Your task to perform on an android device: choose inbox layout in the gmail app Image 0: 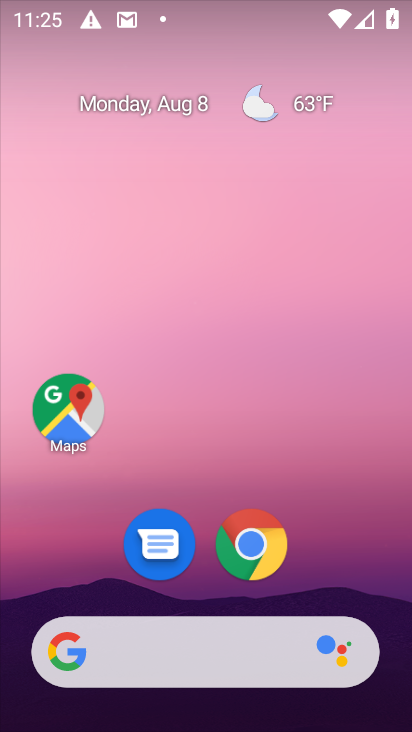
Step 0: drag from (165, 646) to (249, 147)
Your task to perform on an android device: choose inbox layout in the gmail app Image 1: 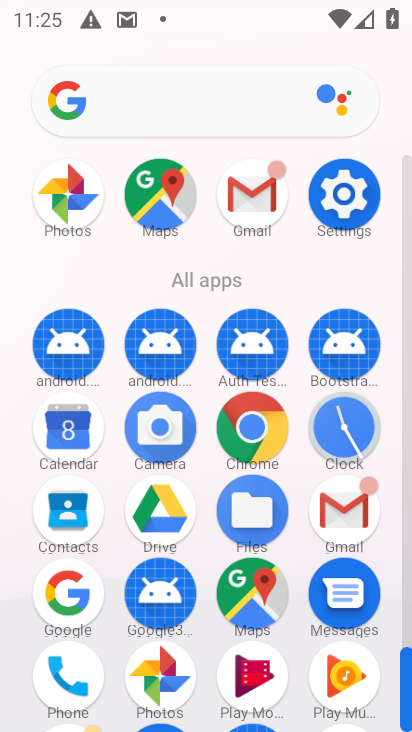
Step 1: click (253, 191)
Your task to perform on an android device: choose inbox layout in the gmail app Image 2: 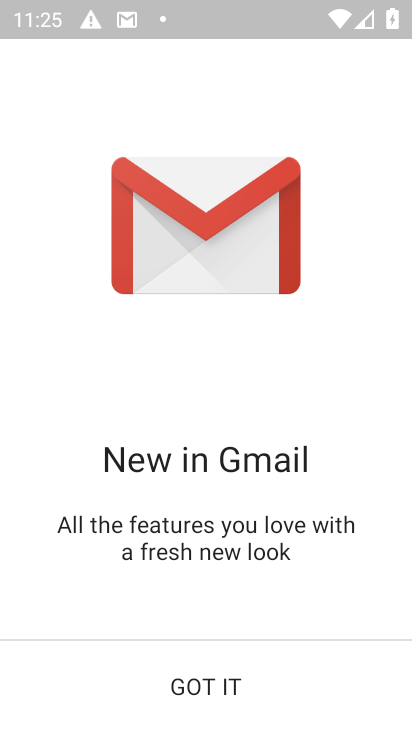
Step 2: click (203, 692)
Your task to perform on an android device: choose inbox layout in the gmail app Image 3: 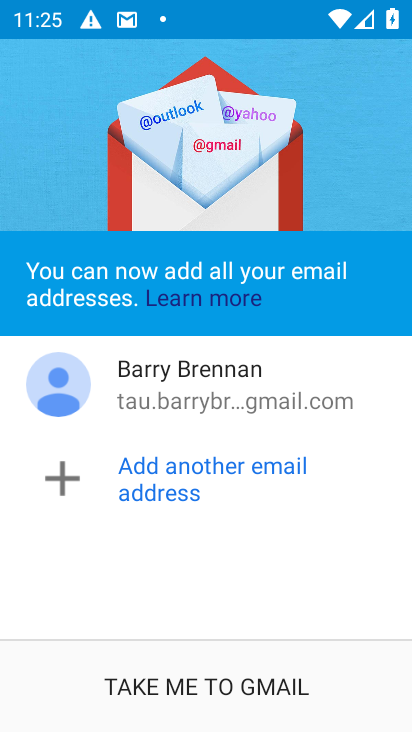
Step 3: click (203, 692)
Your task to perform on an android device: choose inbox layout in the gmail app Image 4: 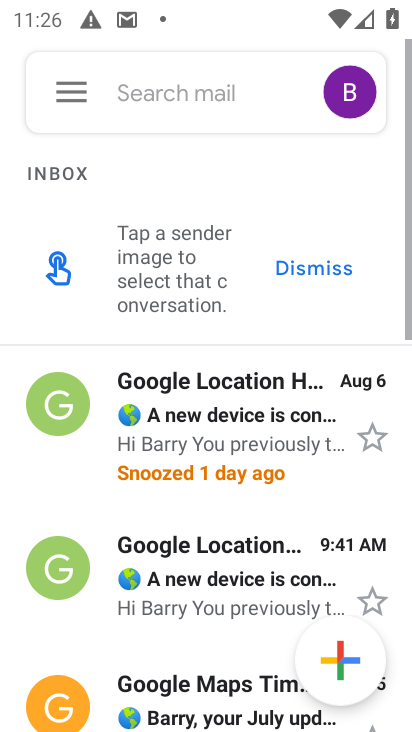
Step 4: click (68, 89)
Your task to perform on an android device: choose inbox layout in the gmail app Image 5: 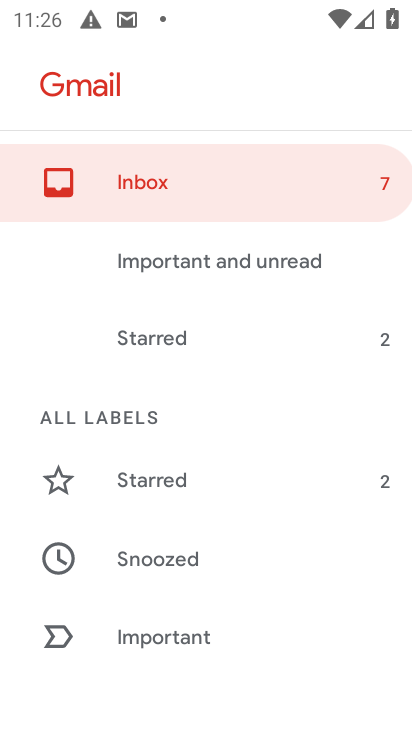
Step 5: drag from (164, 506) to (290, 249)
Your task to perform on an android device: choose inbox layout in the gmail app Image 6: 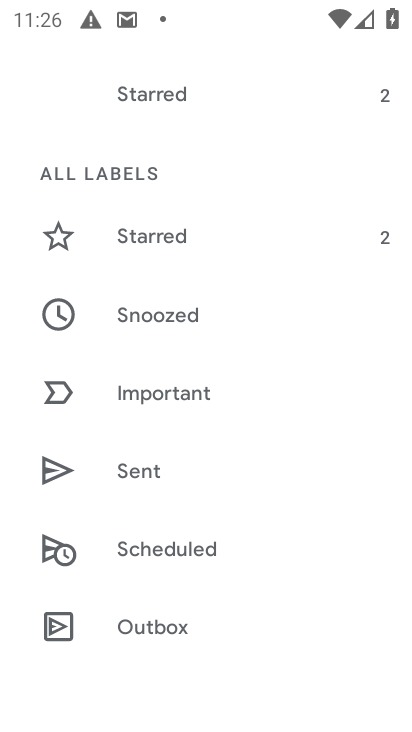
Step 6: drag from (198, 508) to (271, 361)
Your task to perform on an android device: choose inbox layout in the gmail app Image 7: 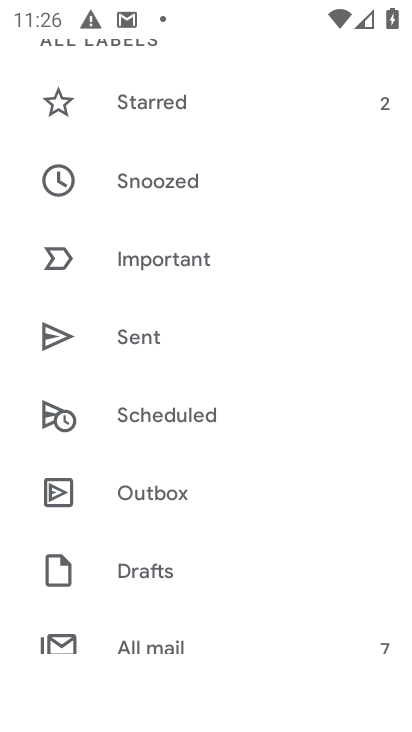
Step 7: drag from (186, 540) to (273, 373)
Your task to perform on an android device: choose inbox layout in the gmail app Image 8: 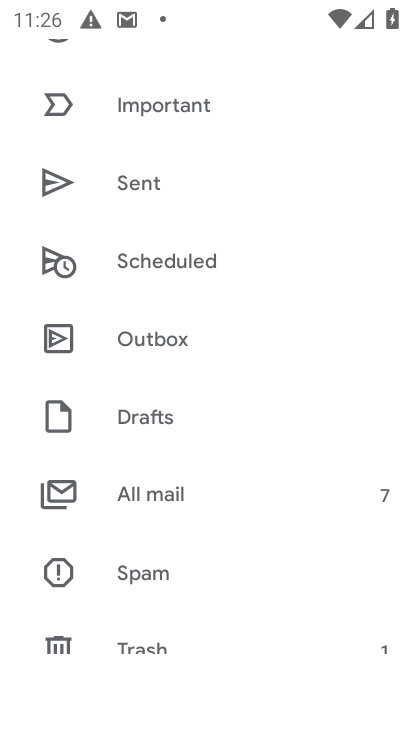
Step 8: drag from (157, 604) to (299, 334)
Your task to perform on an android device: choose inbox layout in the gmail app Image 9: 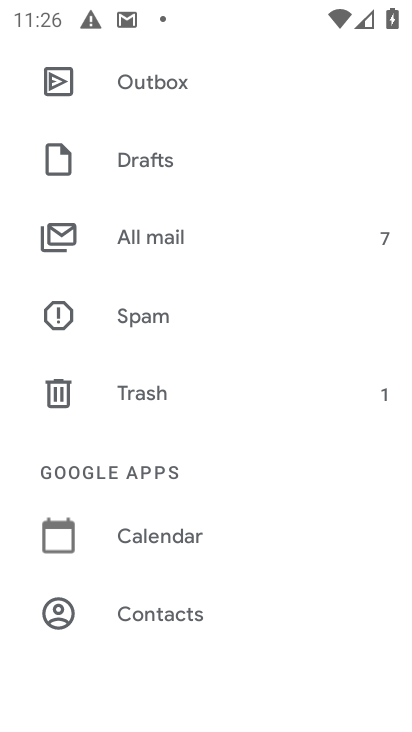
Step 9: drag from (188, 576) to (298, 420)
Your task to perform on an android device: choose inbox layout in the gmail app Image 10: 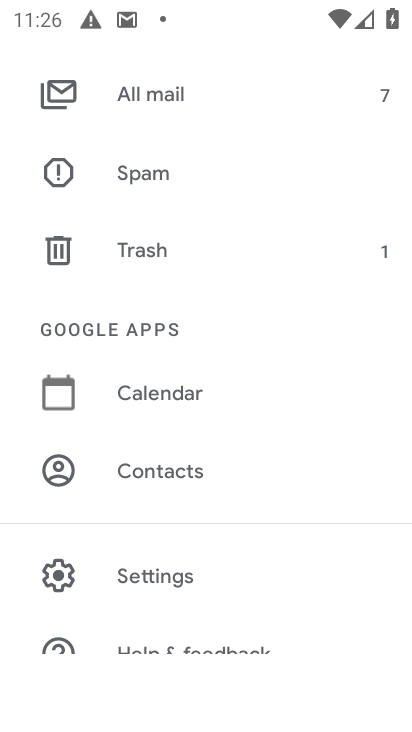
Step 10: click (158, 584)
Your task to perform on an android device: choose inbox layout in the gmail app Image 11: 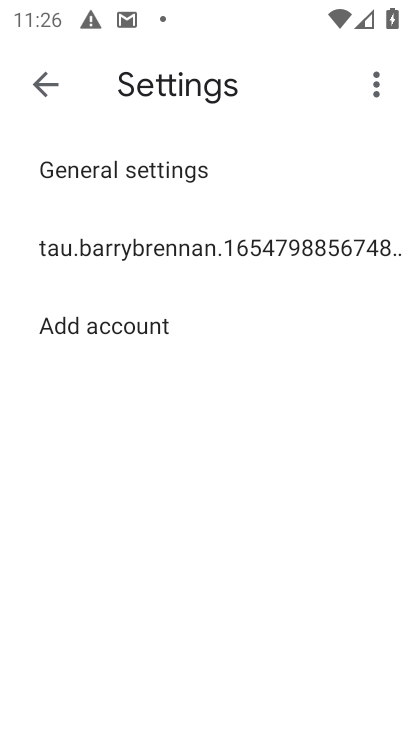
Step 11: click (274, 237)
Your task to perform on an android device: choose inbox layout in the gmail app Image 12: 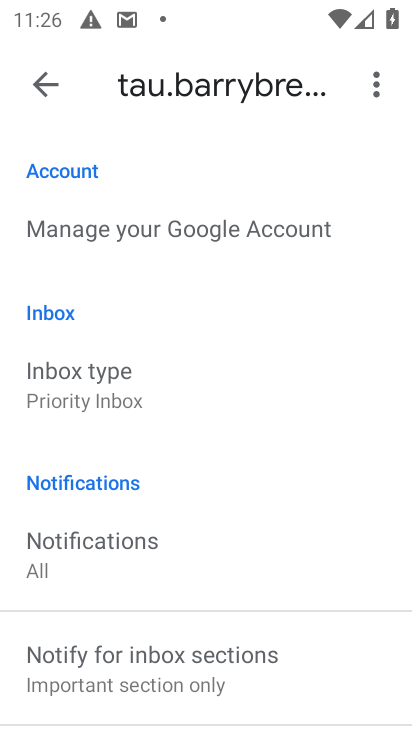
Step 12: click (129, 400)
Your task to perform on an android device: choose inbox layout in the gmail app Image 13: 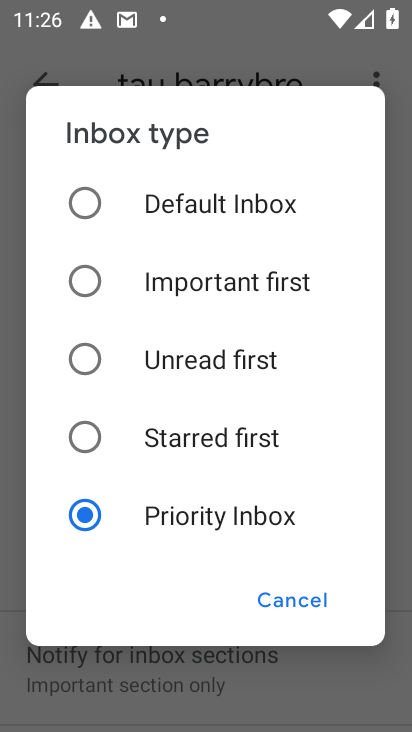
Step 13: click (85, 438)
Your task to perform on an android device: choose inbox layout in the gmail app Image 14: 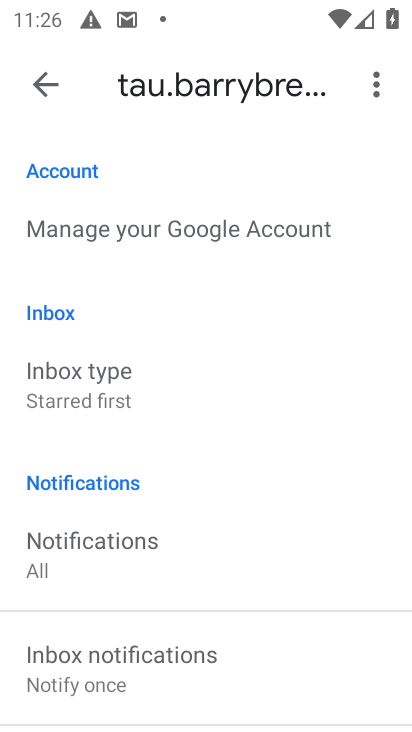
Step 14: task complete